Your task to perform on an android device: check out phone information Image 0: 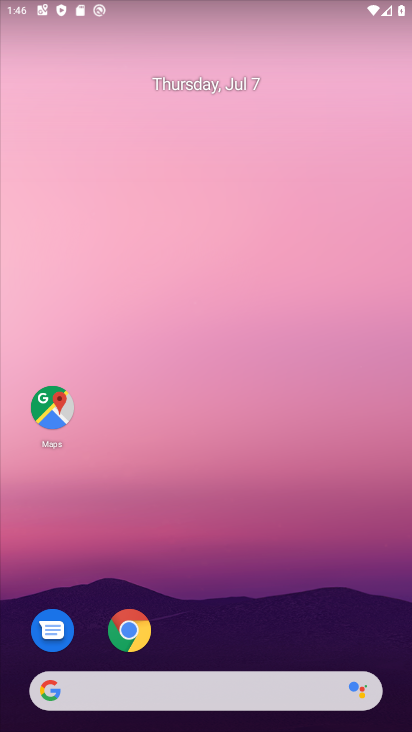
Step 0: drag from (244, 654) to (326, 7)
Your task to perform on an android device: check out phone information Image 1: 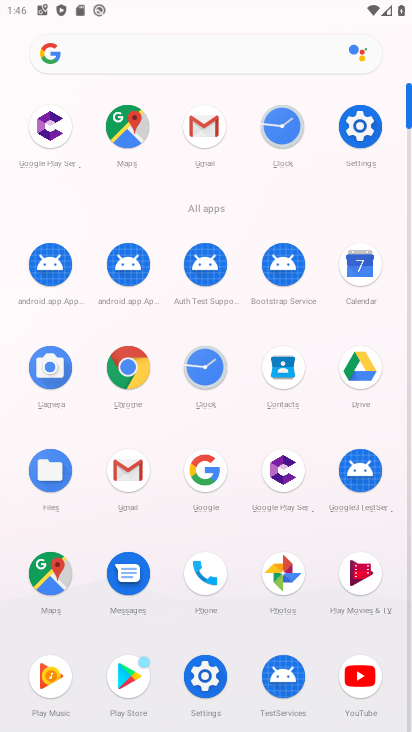
Step 1: click (346, 118)
Your task to perform on an android device: check out phone information Image 2: 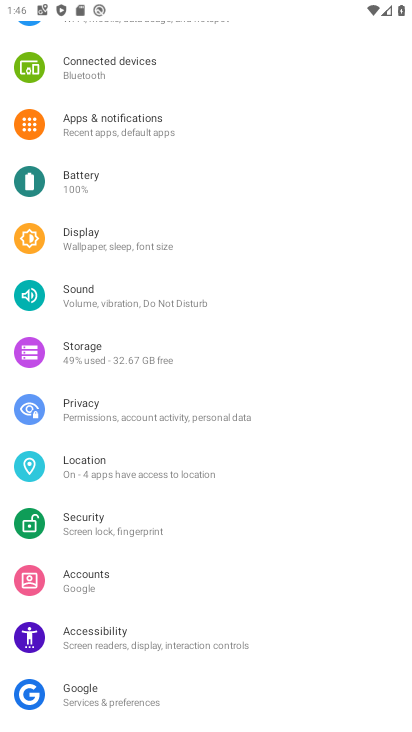
Step 2: drag from (195, 626) to (169, 4)
Your task to perform on an android device: check out phone information Image 3: 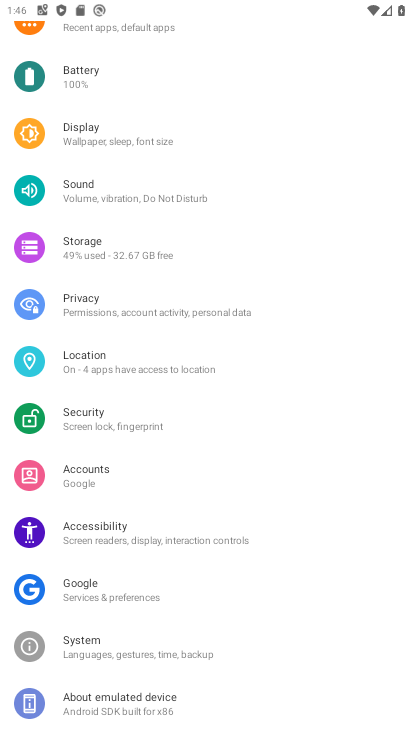
Step 3: click (141, 709)
Your task to perform on an android device: check out phone information Image 4: 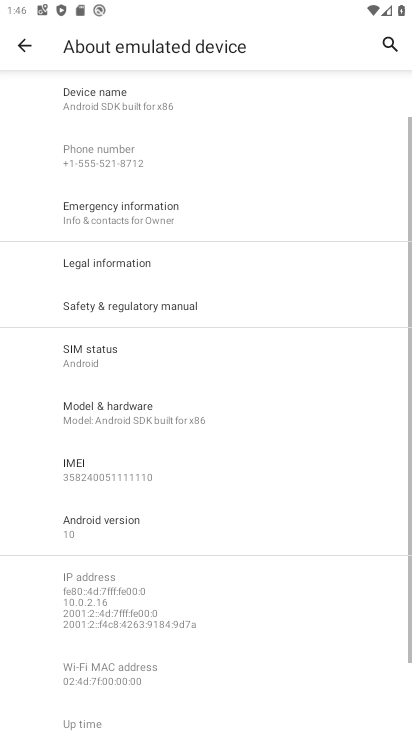
Step 4: task complete